Your task to perform on an android device: Open the phone app and click the voicemail tab. Image 0: 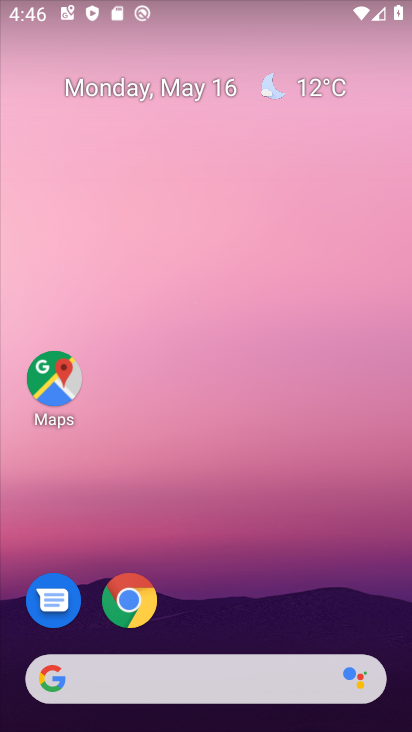
Step 0: drag from (200, 642) to (264, 219)
Your task to perform on an android device: Open the phone app and click the voicemail tab. Image 1: 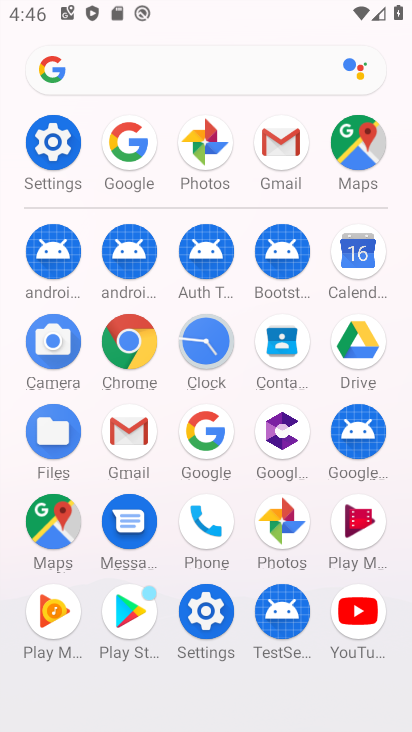
Step 1: click (196, 526)
Your task to perform on an android device: Open the phone app and click the voicemail tab. Image 2: 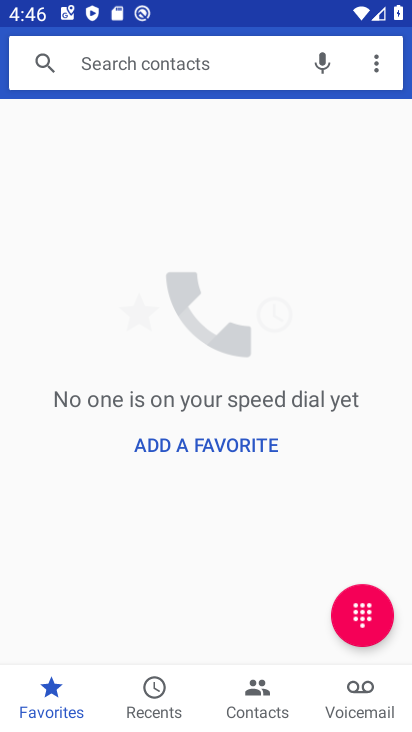
Step 2: click (354, 710)
Your task to perform on an android device: Open the phone app and click the voicemail tab. Image 3: 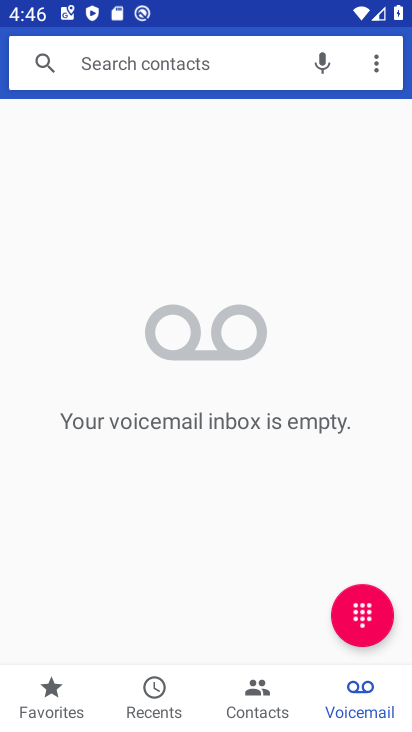
Step 3: task complete